Your task to perform on an android device: turn on javascript in the chrome app Image 0: 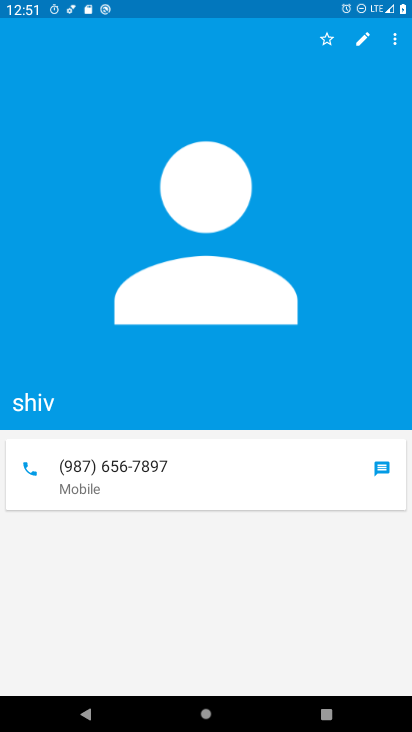
Step 0: press home button
Your task to perform on an android device: turn on javascript in the chrome app Image 1: 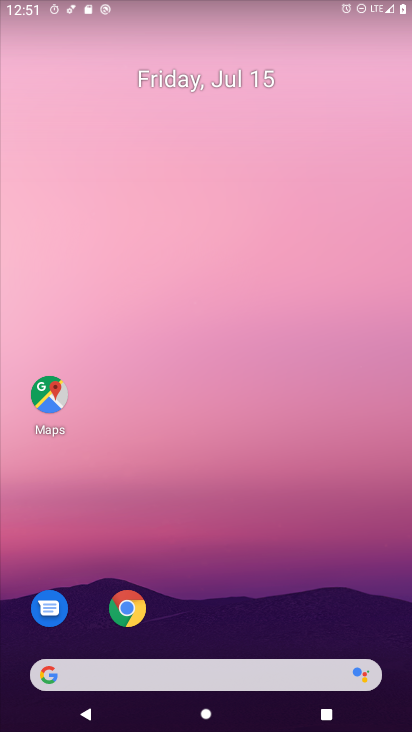
Step 1: drag from (320, 642) to (280, 147)
Your task to perform on an android device: turn on javascript in the chrome app Image 2: 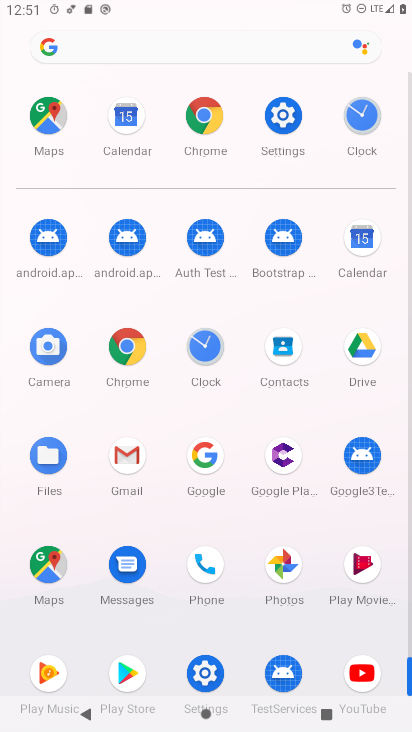
Step 2: click (133, 355)
Your task to perform on an android device: turn on javascript in the chrome app Image 3: 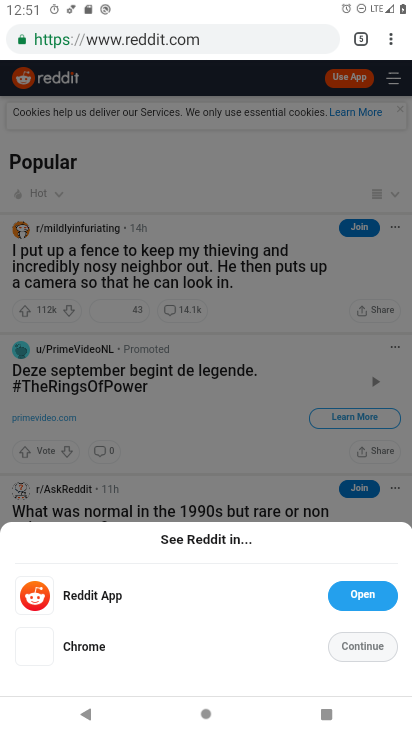
Step 3: drag from (389, 39) to (277, 470)
Your task to perform on an android device: turn on javascript in the chrome app Image 4: 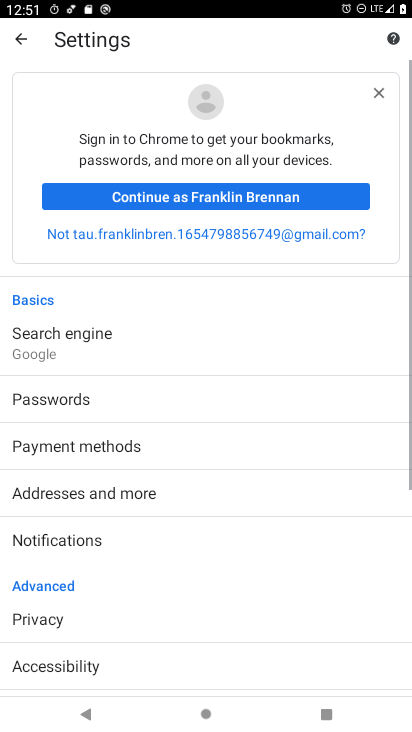
Step 4: drag from (200, 611) to (186, 206)
Your task to perform on an android device: turn on javascript in the chrome app Image 5: 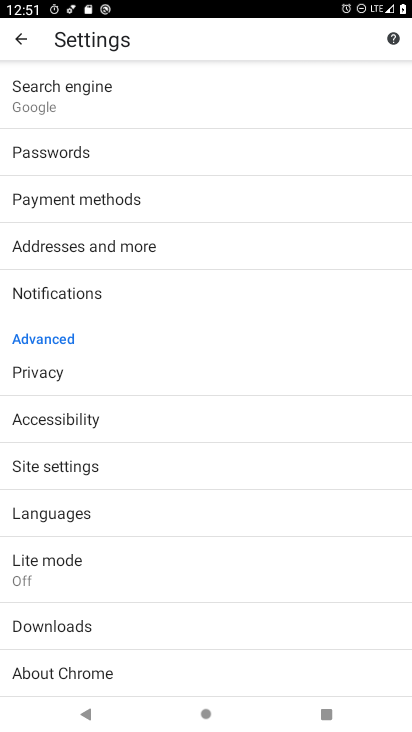
Step 5: click (113, 468)
Your task to perform on an android device: turn on javascript in the chrome app Image 6: 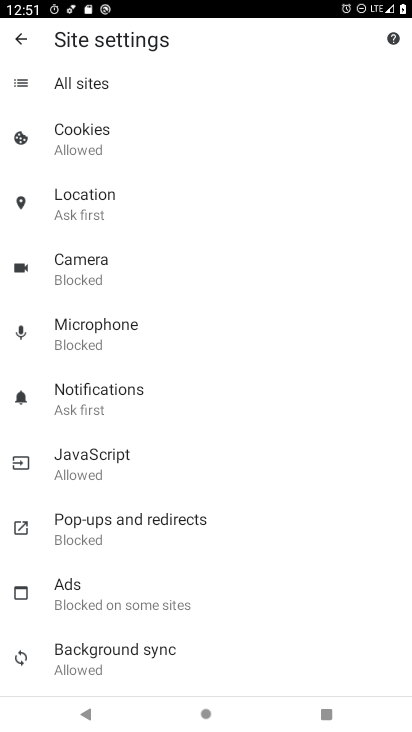
Step 6: click (120, 468)
Your task to perform on an android device: turn on javascript in the chrome app Image 7: 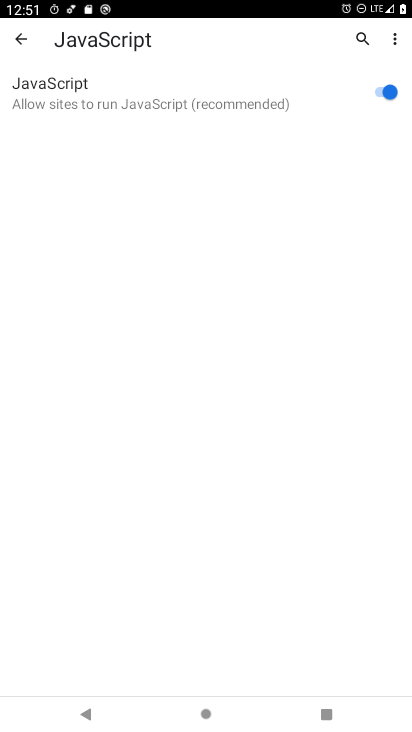
Step 7: task complete